Your task to perform on an android device: Open display settings Image 0: 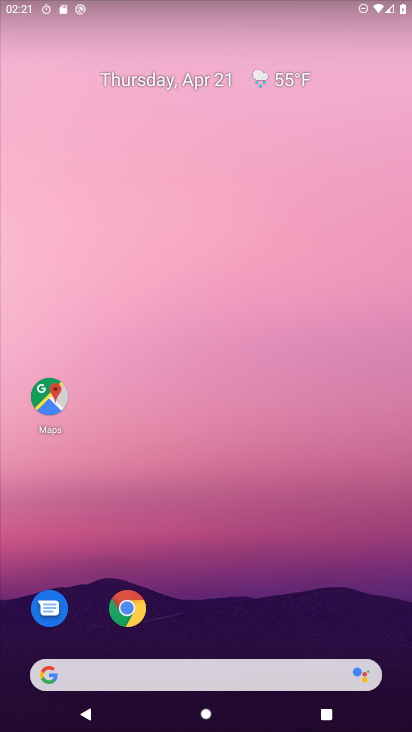
Step 0: drag from (189, 428) to (109, 55)
Your task to perform on an android device: Open display settings Image 1: 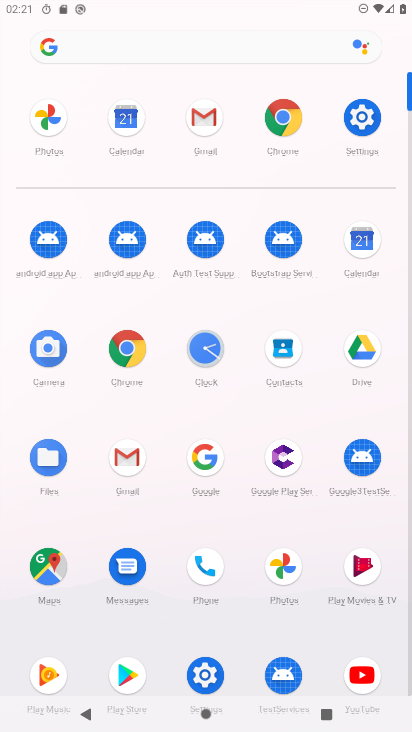
Step 1: click (360, 137)
Your task to perform on an android device: Open display settings Image 2: 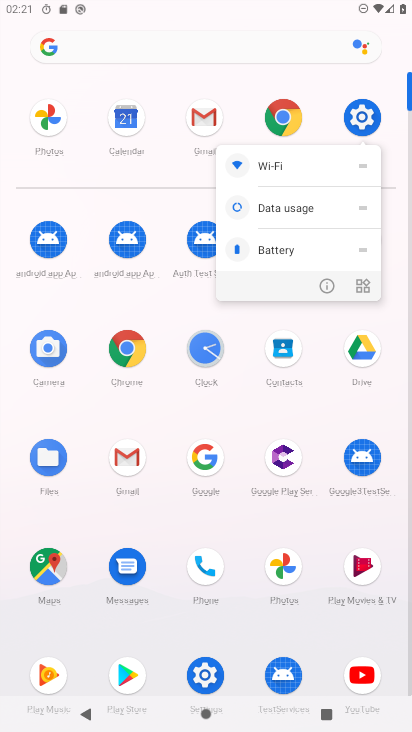
Step 2: click (362, 115)
Your task to perform on an android device: Open display settings Image 3: 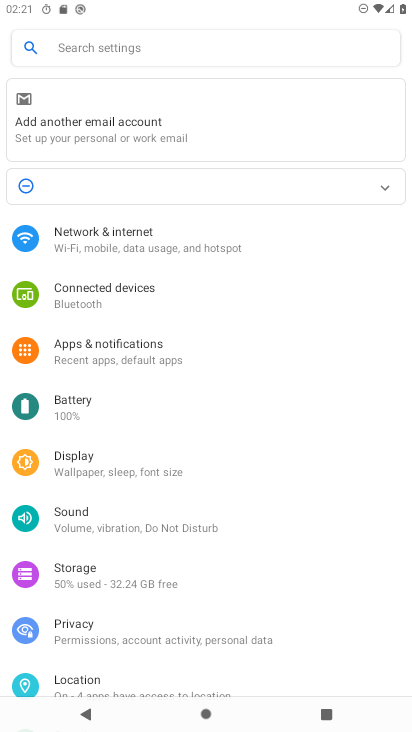
Step 3: click (63, 466)
Your task to perform on an android device: Open display settings Image 4: 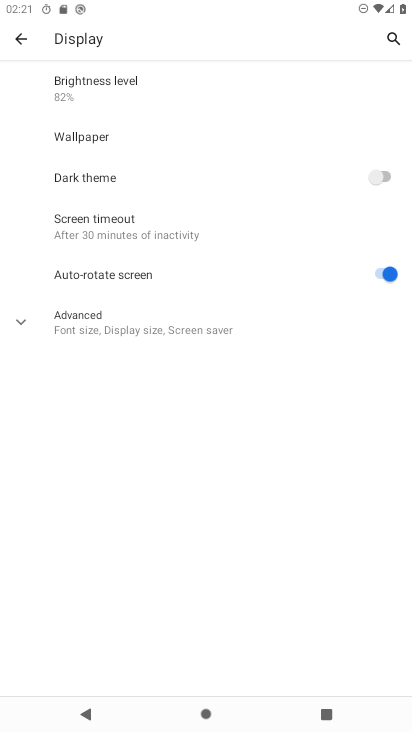
Step 4: click (112, 335)
Your task to perform on an android device: Open display settings Image 5: 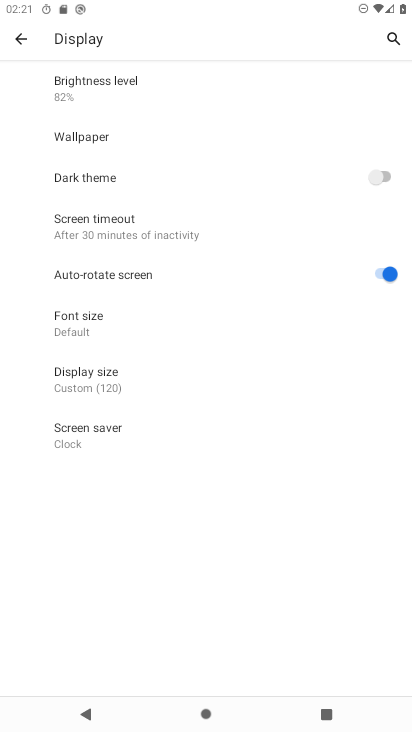
Step 5: task complete